Your task to perform on an android device: toggle pop-ups in chrome Image 0: 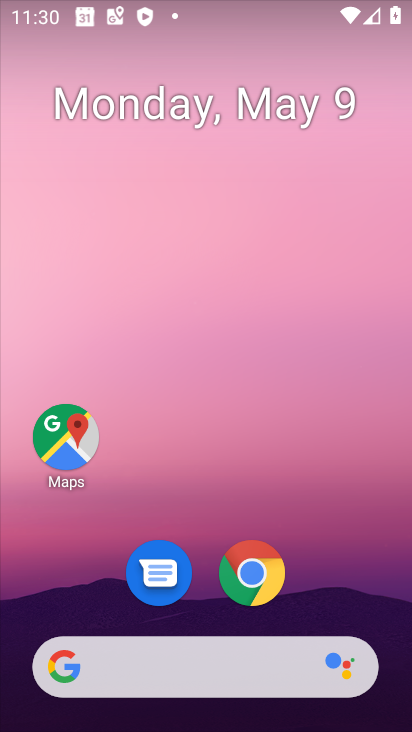
Step 0: drag from (195, 608) to (231, 415)
Your task to perform on an android device: toggle pop-ups in chrome Image 1: 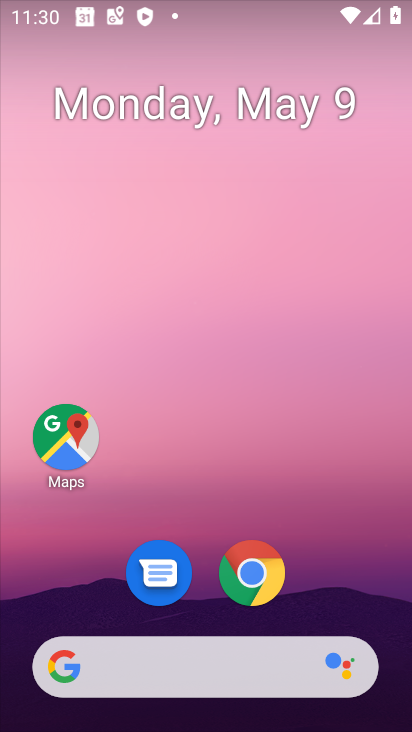
Step 1: click (267, 571)
Your task to perform on an android device: toggle pop-ups in chrome Image 2: 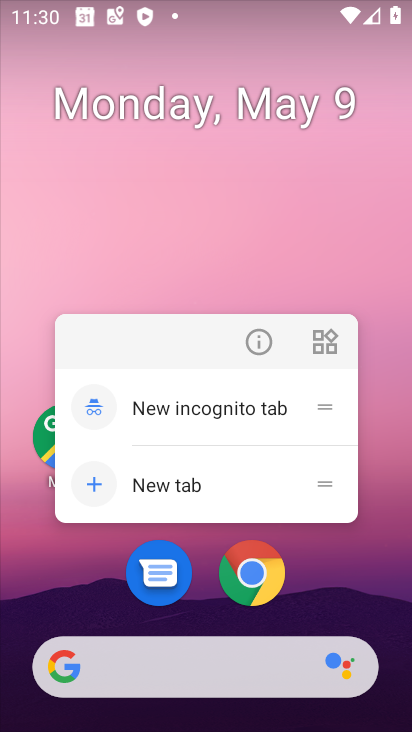
Step 2: click (260, 340)
Your task to perform on an android device: toggle pop-ups in chrome Image 3: 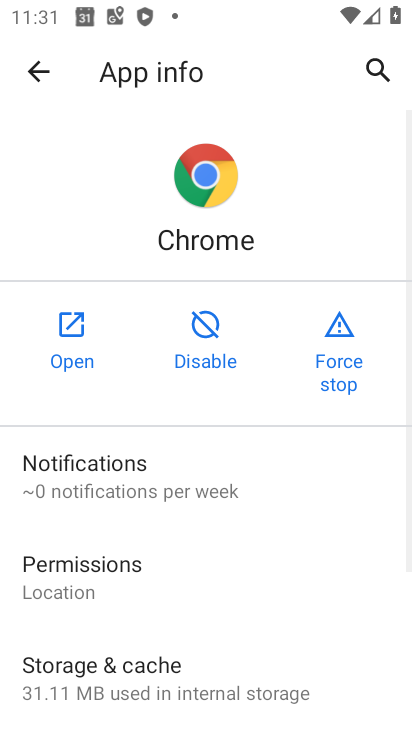
Step 3: click (81, 337)
Your task to perform on an android device: toggle pop-ups in chrome Image 4: 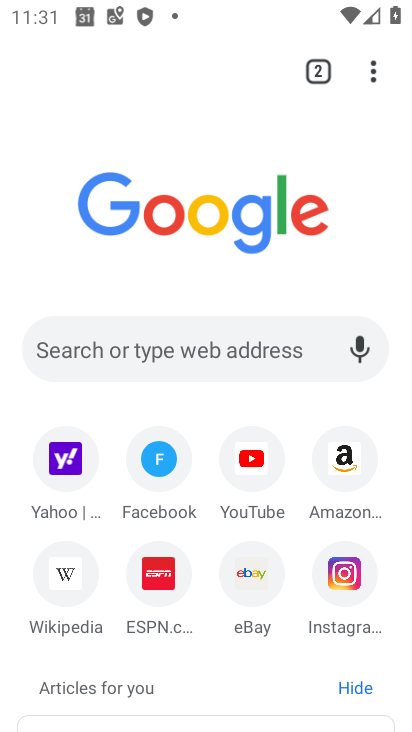
Step 4: click (370, 59)
Your task to perform on an android device: toggle pop-ups in chrome Image 5: 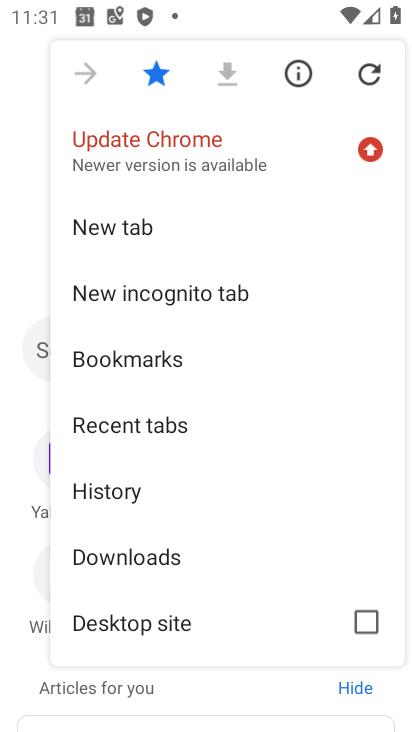
Step 5: drag from (160, 584) to (228, 151)
Your task to perform on an android device: toggle pop-ups in chrome Image 6: 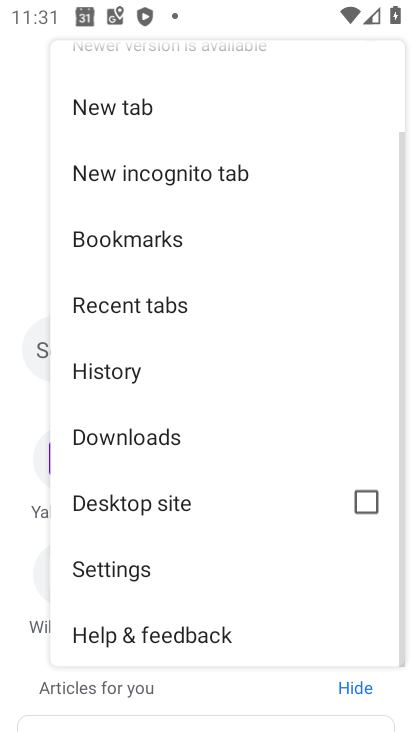
Step 6: click (123, 582)
Your task to perform on an android device: toggle pop-ups in chrome Image 7: 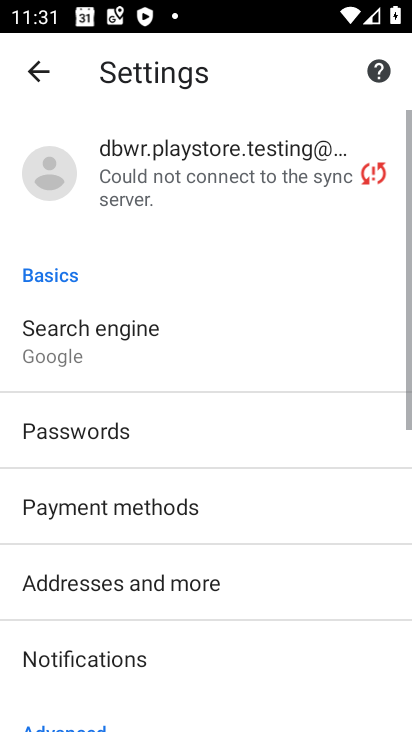
Step 7: drag from (271, 552) to (354, 61)
Your task to perform on an android device: toggle pop-ups in chrome Image 8: 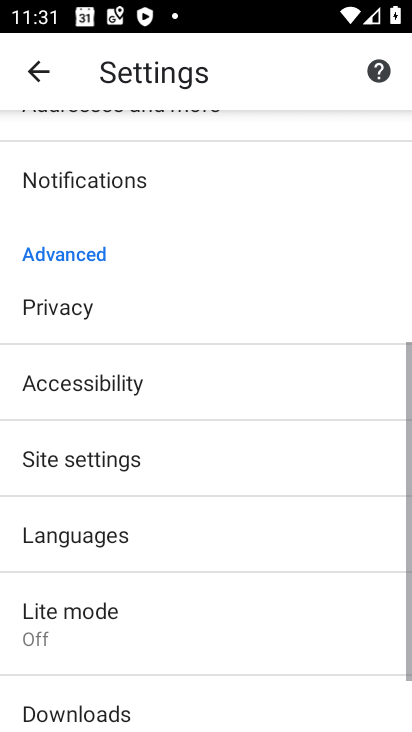
Step 8: drag from (170, 621) to (250, 260)
Your task to perform on an android device: toggle pop-ups in chrome Image 9: 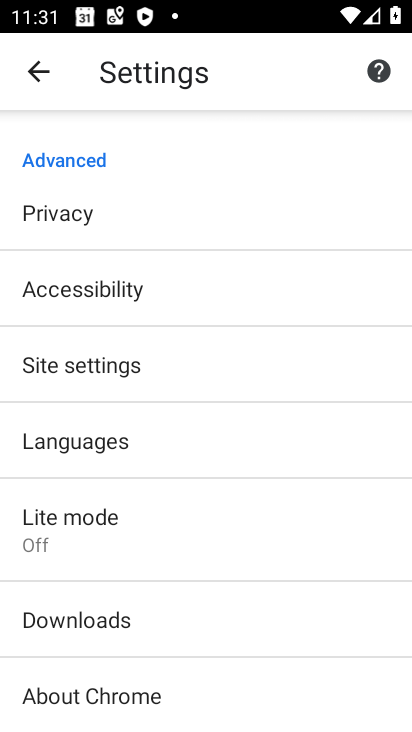
Step 9: drag from (153, 668) to (290, 163)
Your task to perform on an android device: toggle pop-ups in chrome Image 10: 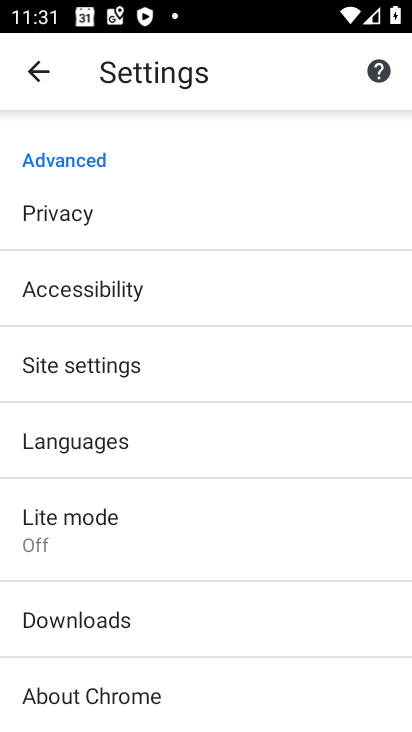
Step 10: click (104, 366)
Your task to perform on an android device: toggle pop-ups in chrome Image 11: 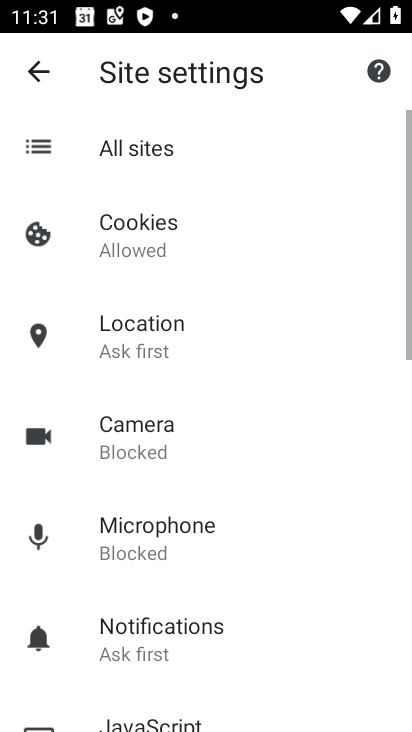
Step 11: drag from (205, 663) to (270, 141)
Your task to perform on an android device: toggle pop-ups in chrome Image 12: 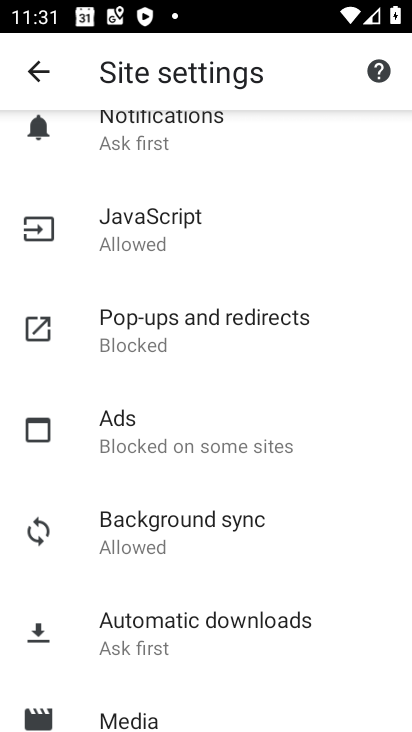
Step 12: drag from (236, 588) to (264, 203)
Your task to perform on an android device: toggle pop-ups in chrome Image 13: 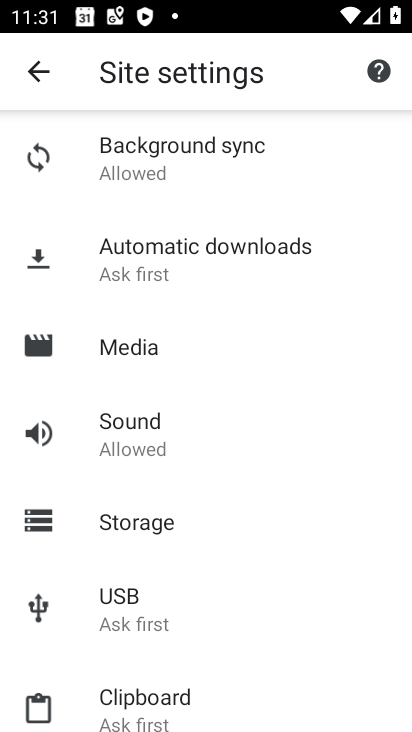
Step 13: drag from (183, 588) to (252, 230)
Your task to perform on an android device: toggle pop-ups in chrome Image 14: 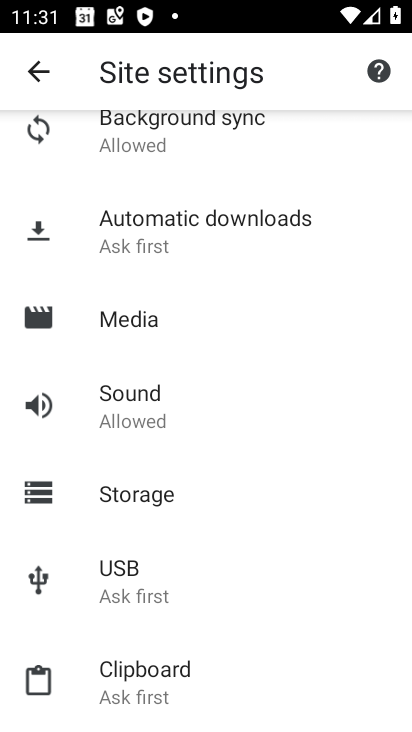
Step 14: drag from (214, 280) to (211, 622)
Your task to perform on an android device: toggle pop-ups in chrome Image 15: 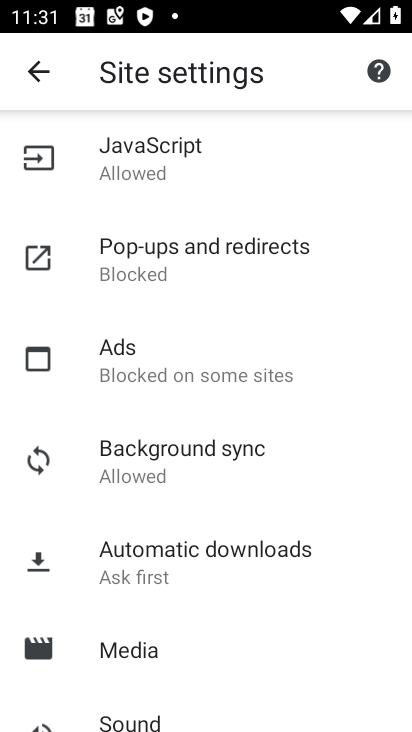
Step 15: click (196, 260)
Your task to perform on an android device: toggle pop-ups in chrome Image 16: 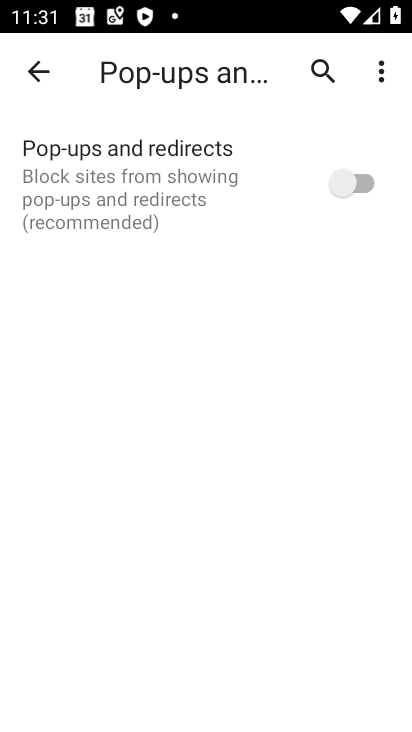
Step 16: click (326, 194)
Your task to perform on an android device: toggle pop-ups in chrome Image 17: 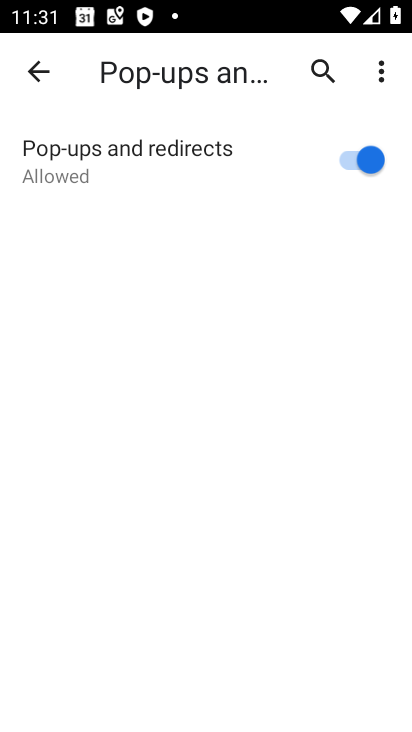
Step 17: task complete